Your task to perform on an android device: Open calendar and show me the second week of next month Image 0: 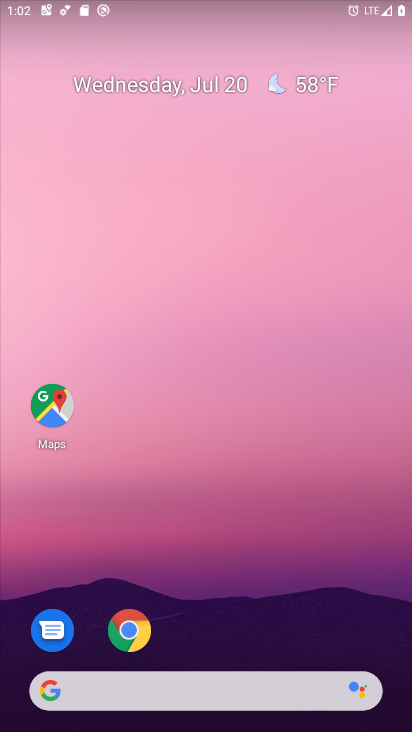
Step 0: drag from (260, 579) to (231, 189)
Your task to perform on an android device: Open calendar and show me the second week of next month Image 1: 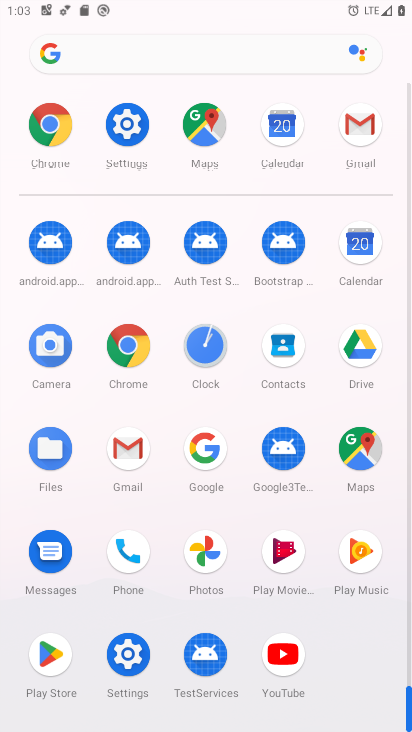
Step 1: click (370, 273)
Your task to perform on an android device: Open calendar and show me the second week of next month Image 2: 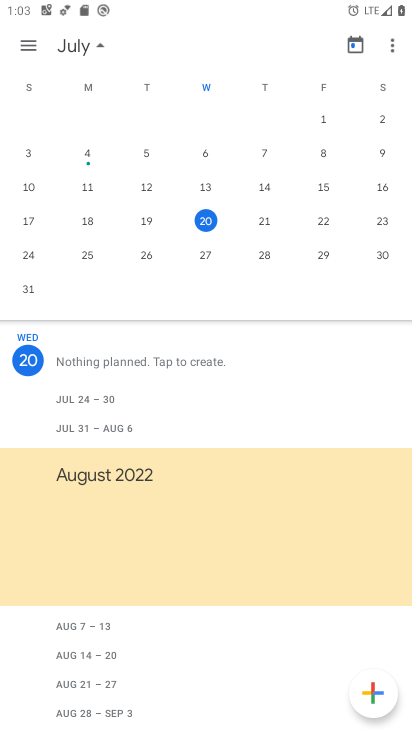
Step 2: drag from (313, 232) to (15, 249)
Your task to perform on an android device: Open calendar and show me the second week of next month Image 3: 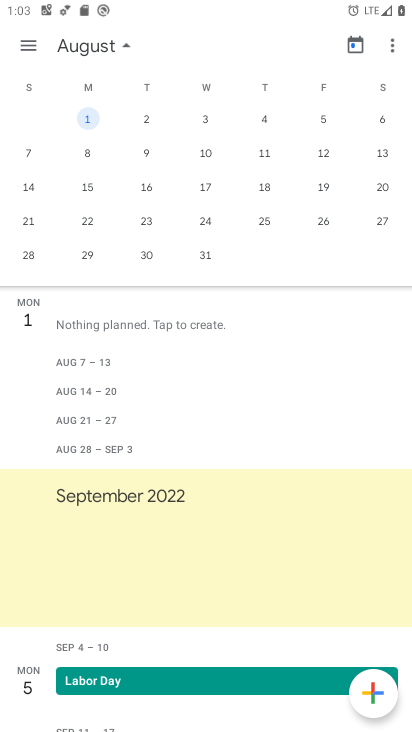
Step 3: click (82, 125)
Your task to perform on an android device: Open calendar and show me the second week of next month Image 4: 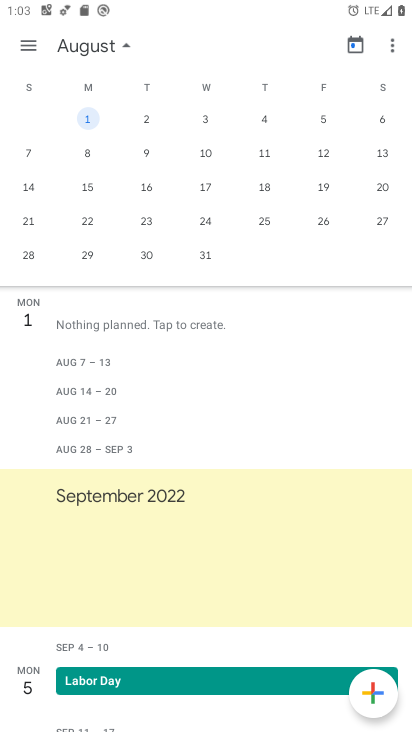
Step 4: click (84, 158)
Your task to perform on an android device: Open calendar and show me the second week of next month Image 5: 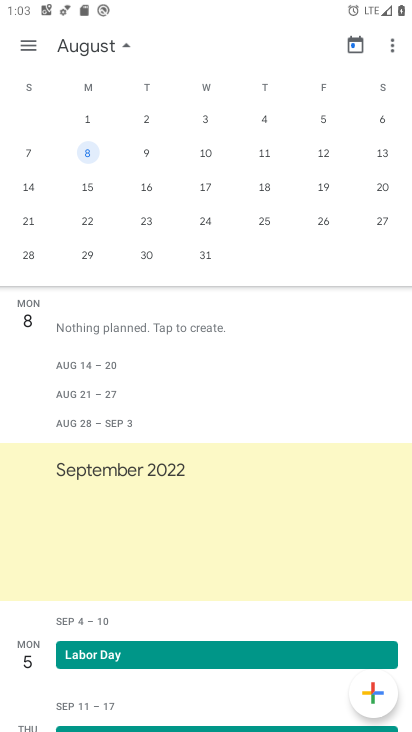
Step 5: task complete